Your task to perform on an android device: open a new tab in the chrome app Image 0: 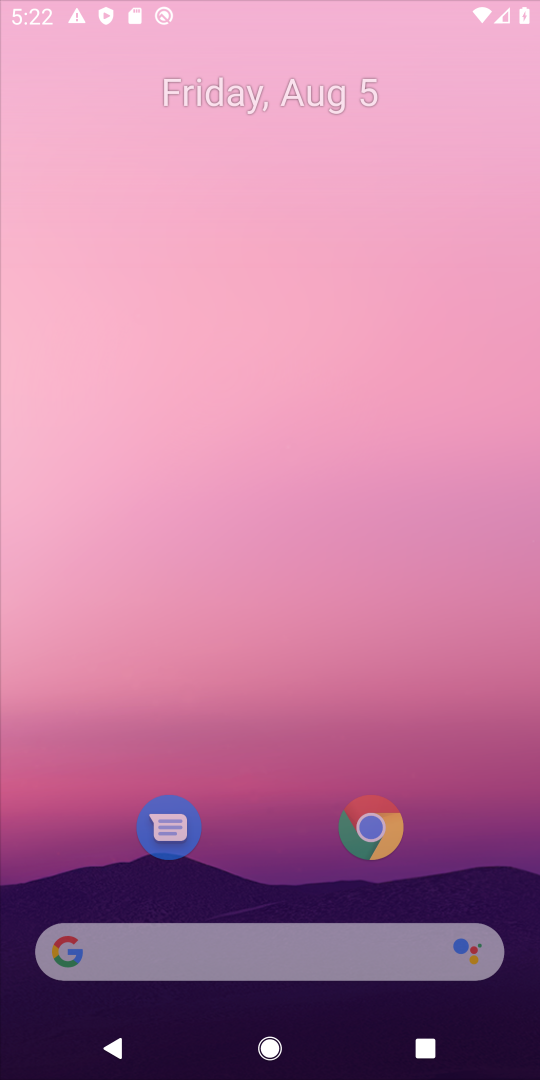
Step 0: press home button
Your task to perform on an android device: open a new tab in the chrome app Image 1: 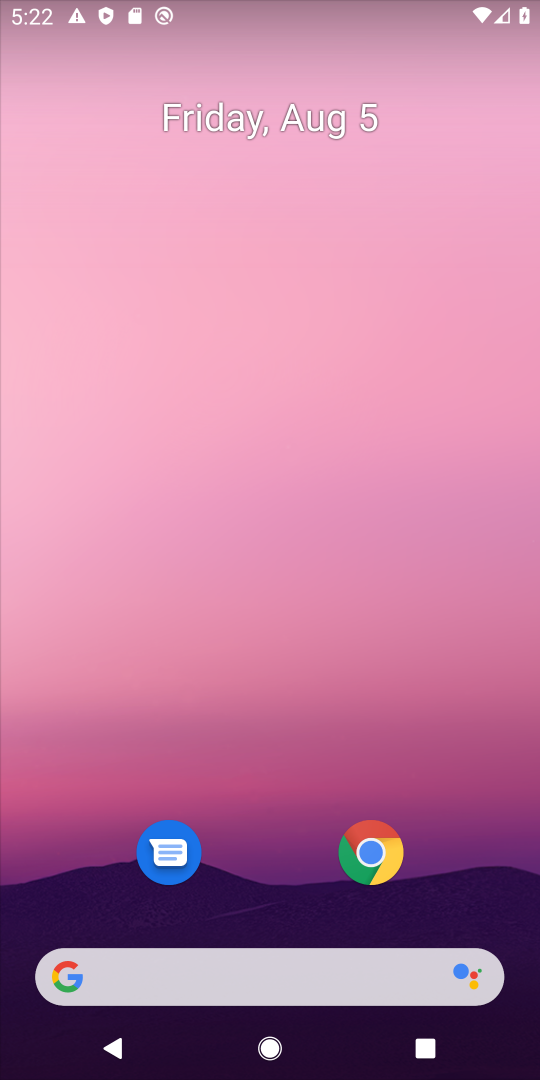
Step 1: click (391, 839)
Your task to perform on an android device: open a new tab in the chrome app Image 2: 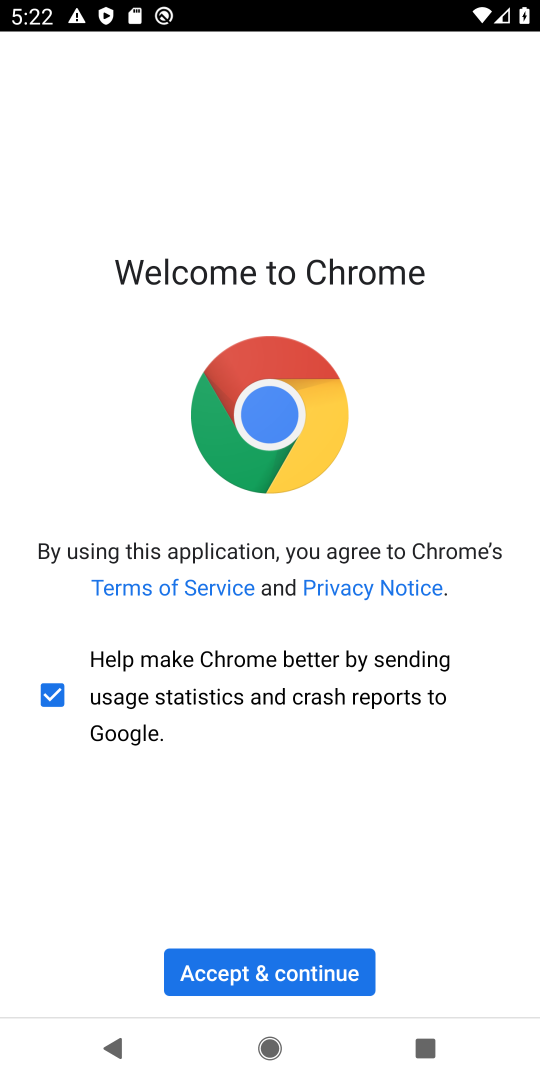
Step 2: click (288, 974)
Your task to perform on an android device: open a new tab in the chrome app Image 3: 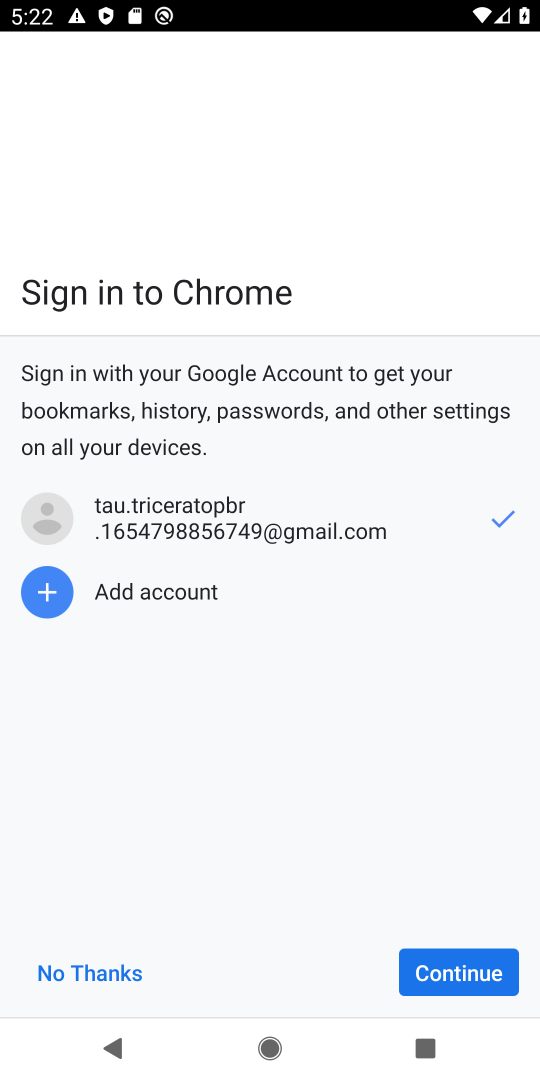
Step 3: click (466, 967)
Your task to perform on an android device: open a new tab in the chrome app Image 4: 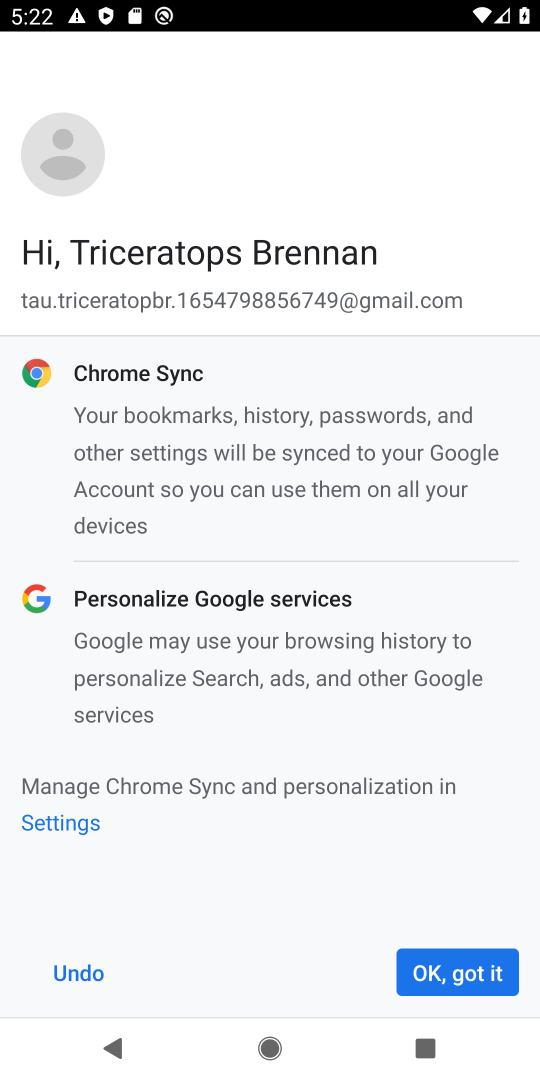
Step 4: click (466, 967)
Your task to perform on an android device: open a new tab in the chrome app Image 5: 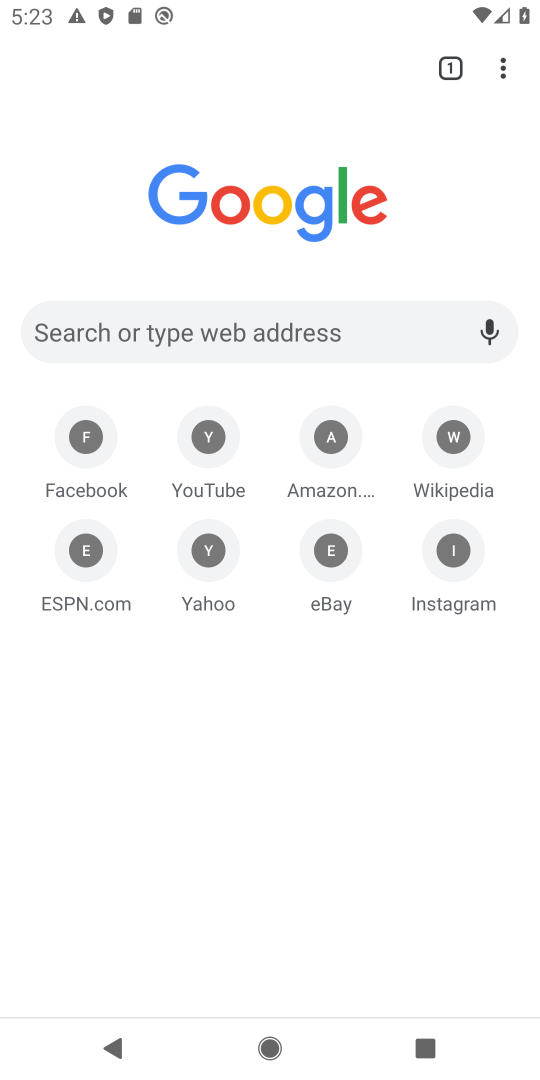
Step 5: click (493, 68)
Your task to perform on an android device: open a new tab in the chrome app Image 6: 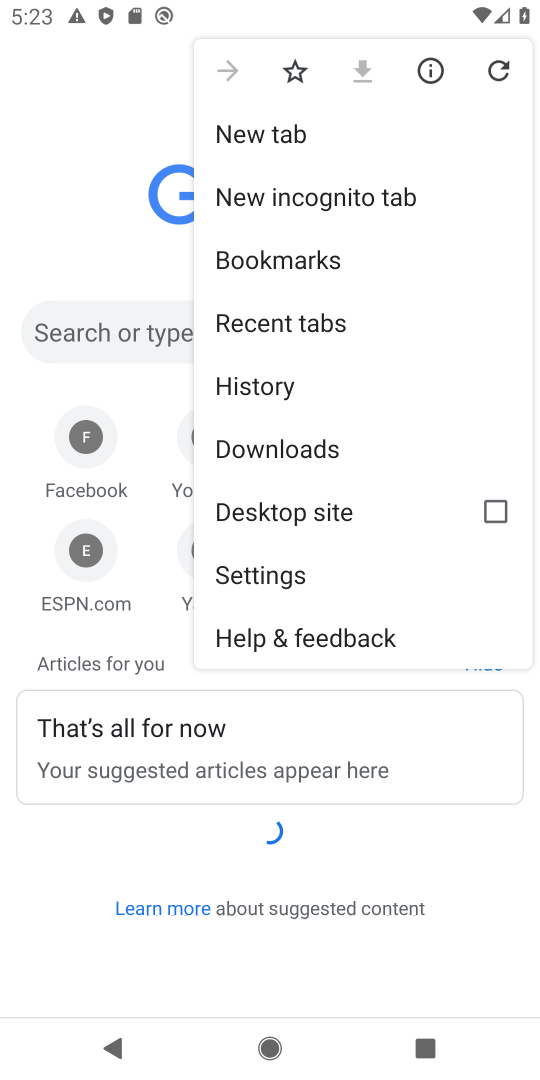
Step 6: click (260, 143)
Your task to perform on an android device: open a new tab in the chrome app Image 7: 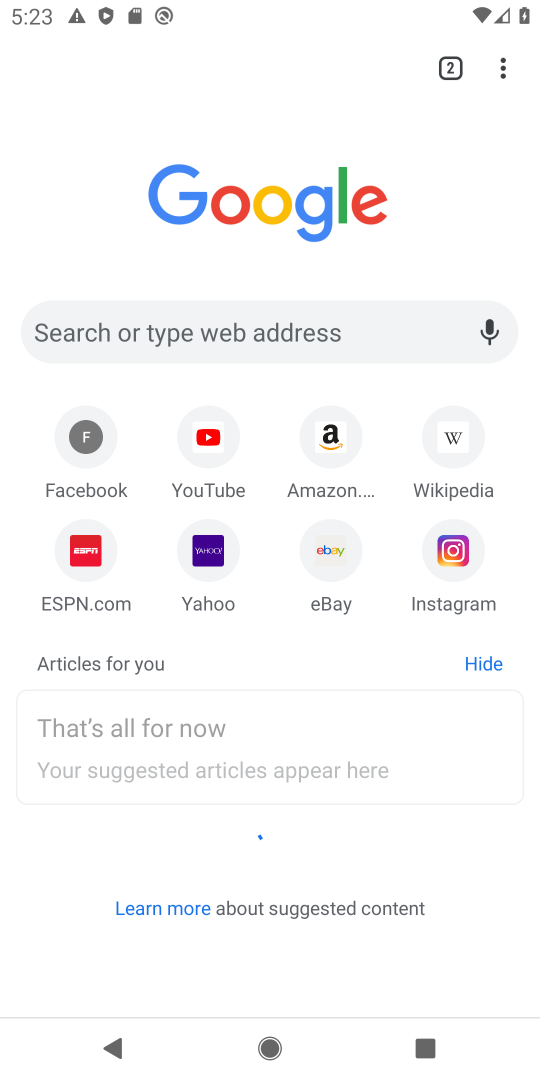
Step 7: task complete